Your task to perform on an android device: stop showing notifications on the lock screen Image 0: 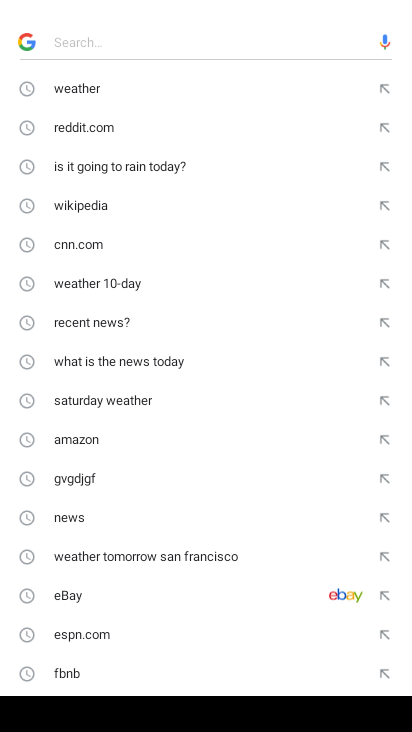
Step 0: press home button
Your task to perform on an android device: stop showing notifications on the lock screen Image 1: 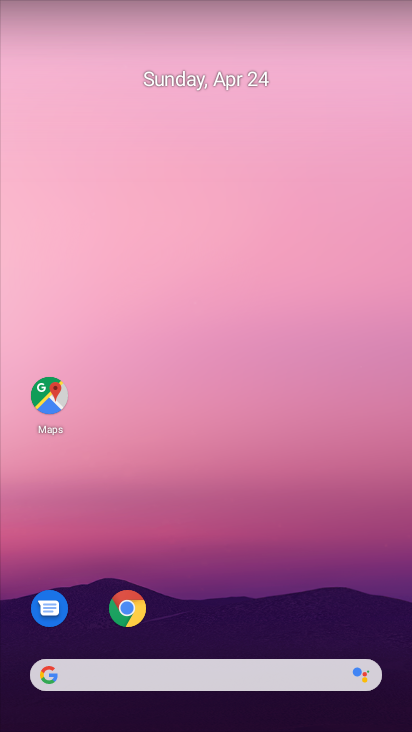
Step 1: drag from (272, 582) to (287, 88)
Your task to perform on an android device: stop showing notifications on the lock screen Image 2: 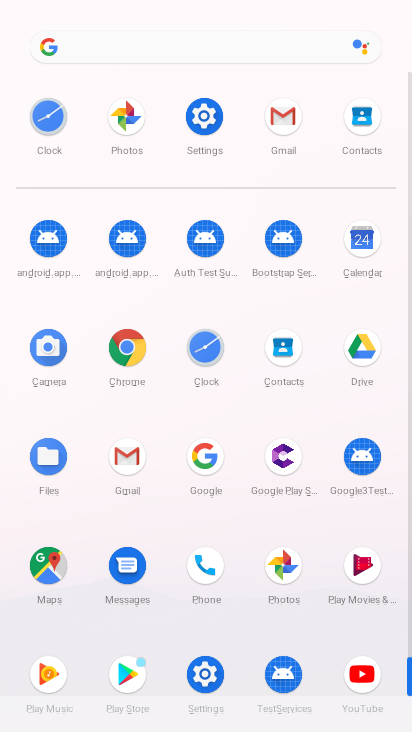
Step 2: click (206, 121)
Your task to perform on an android device: stop showing notifications on the lock screen Image 3: 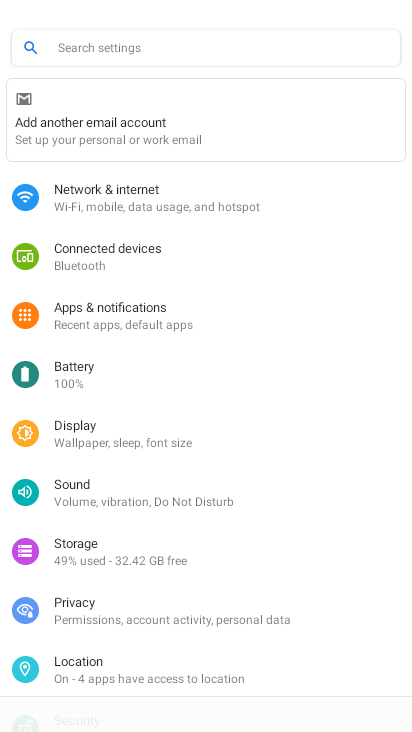
Step 3: click (151, 305)
Your task to perform on an android device: stop showing notifications on the lock screen Image 4: 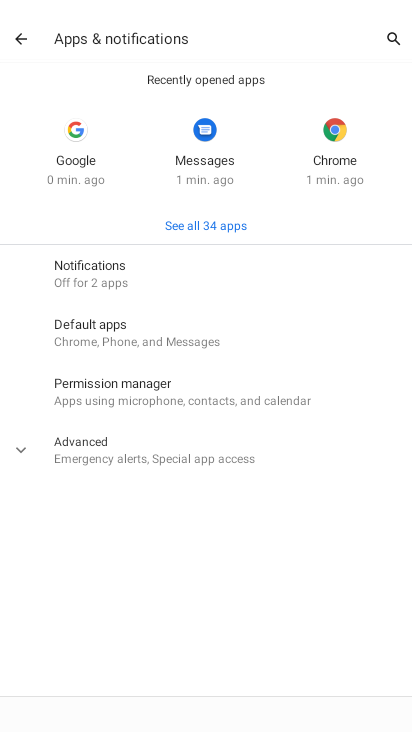
Step 4: click (149, 255)
Your task to perform on an android device: stop showing notifications on the lock screen Image 5: 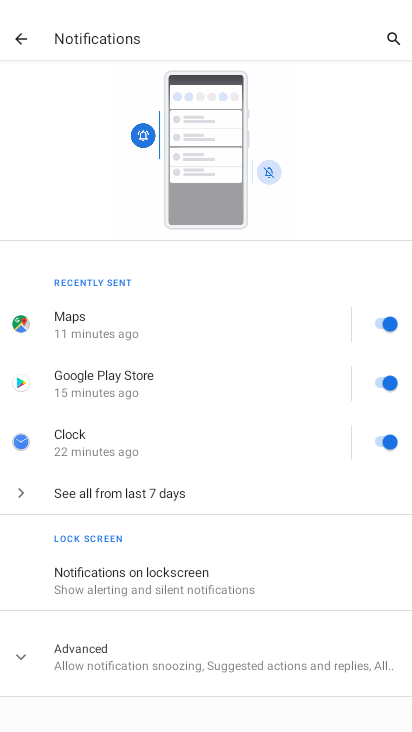
Step 5: click (217, 571)
Your task to perform on an android device: stop showing notifications on the lock screen Image 6: 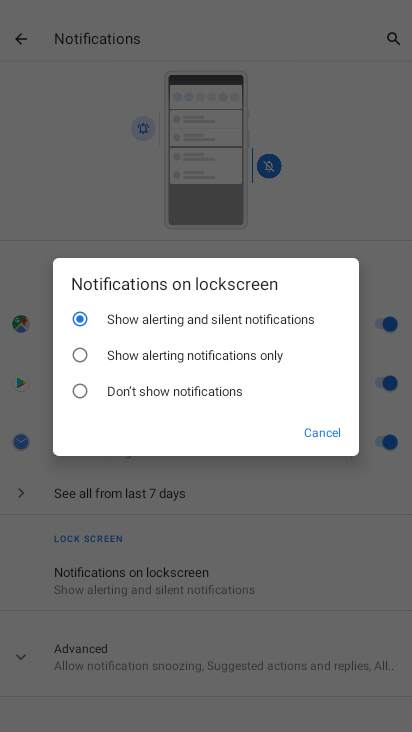
Step 6: click (82, 387)
Your task to perform on an android device: stop showing notifications on the lock screen Image 7: 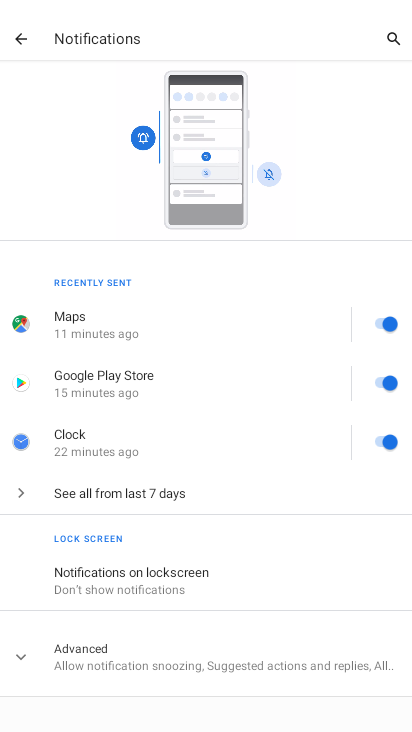
Step 7: task complete